Your task to perform on an android device: Open notification settings Image 0: 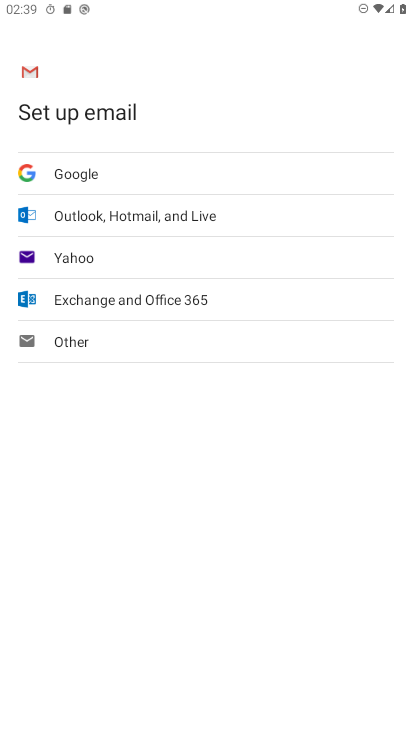
Step 0: press home button
Your task to perform on an android device: Open notification settings Image 1: 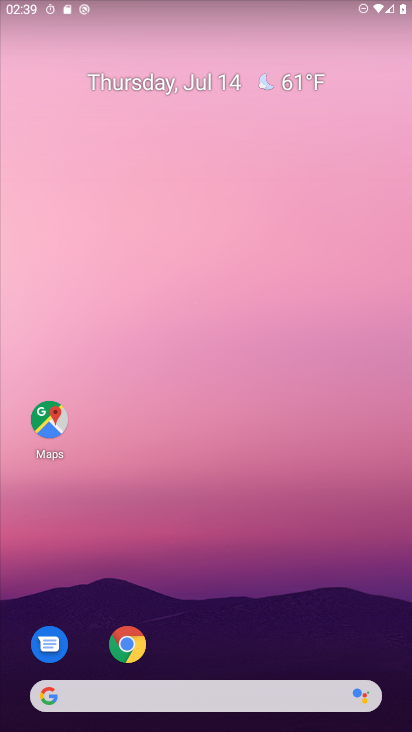
Step 1: drag from (207, 588) to (157, 12)
Your task to perform on an android device: Open notification settings Image 2: 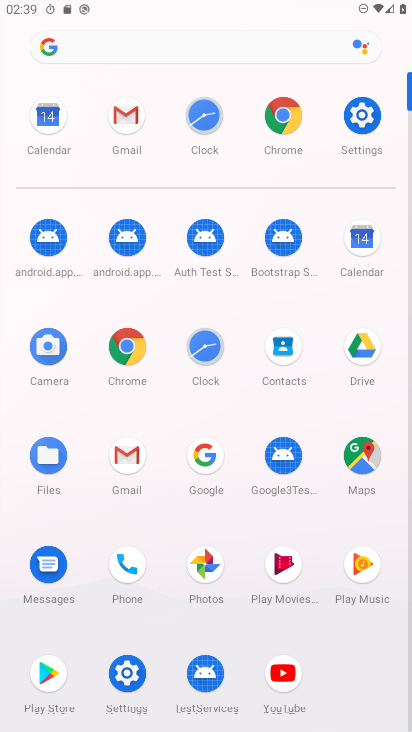
Step 2: click (366, 117)
Your task to perform on an android device: Open notification settings Image 3: 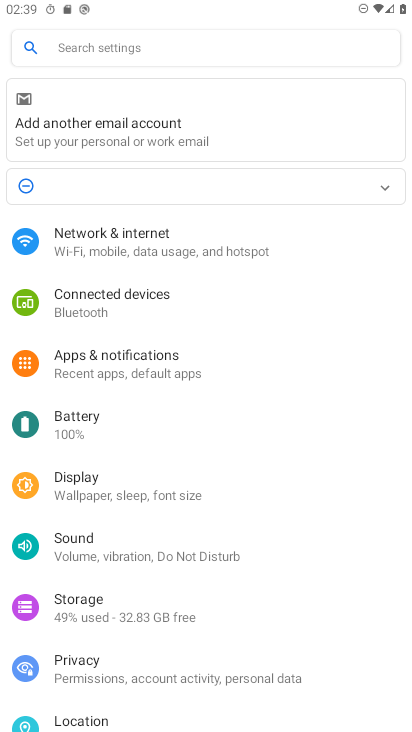
Step 3: click (166, 372)
Your task to perform on an android device: Open notification settings Image 4: 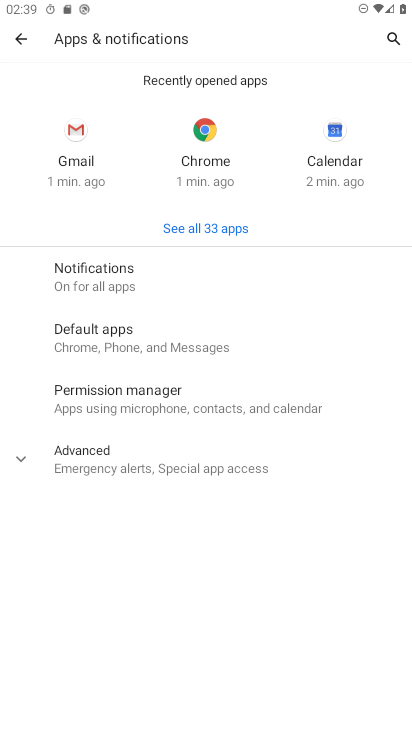
Step 4: click (104, 266)
Your task to perform on an android device: Open notification settings Image 5: 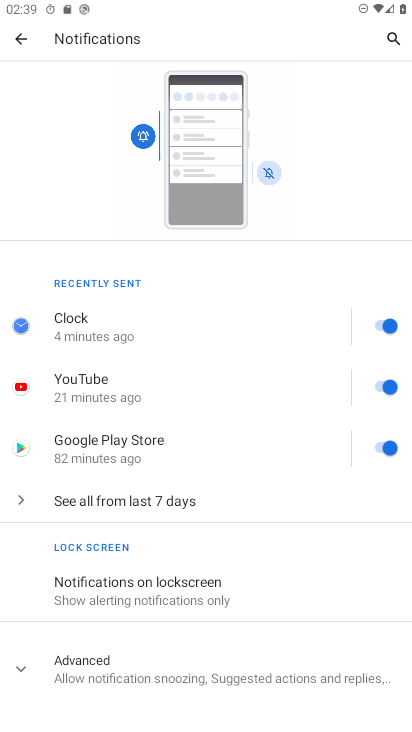
Step 5: task complete